Your task to perform on an android device: Open accessibility settings Image 0: 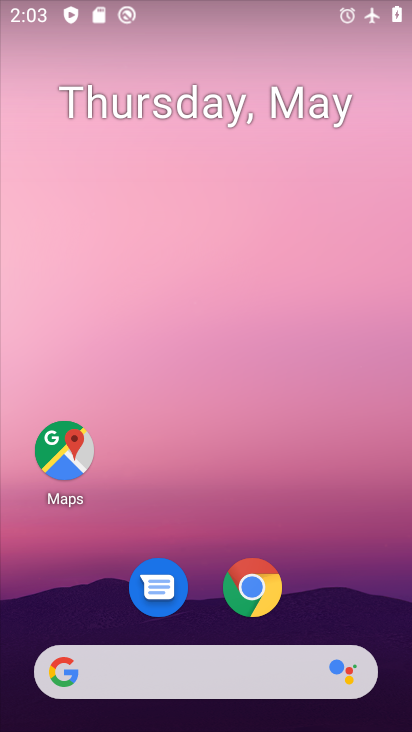
Step 0: drag from (325, 549) to (261, 67)
Your task to perform on an android device: Open accessibility settings Image 1: 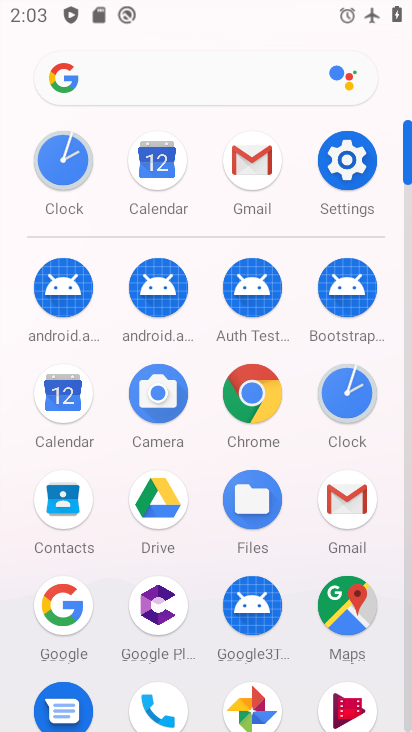
Step 1: click (342, 165)
Your task to perform on an android device: Open accessibility settings Image 2: 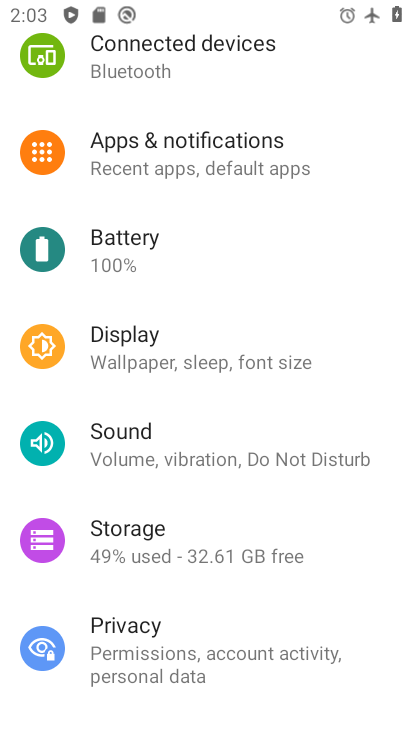
Step 2: drag from (133, 301) to (118, 237)
Your task to perform on an android device: Open accessibility settings Image 3: 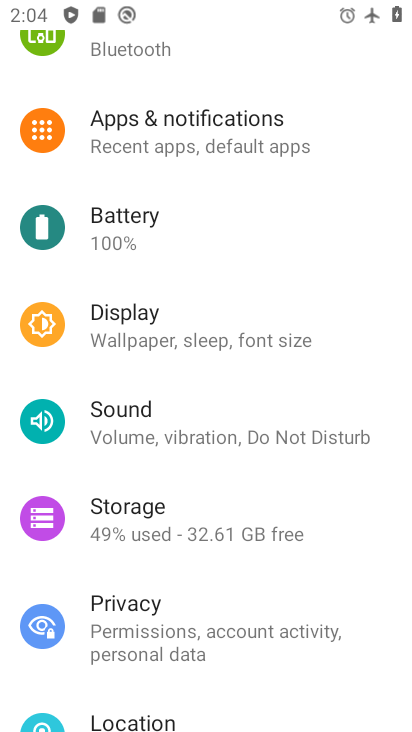
Step 3: drag from (176, 586) to (175, 308)
Your task to perform on an android device: Open accessibility settings Image 4: 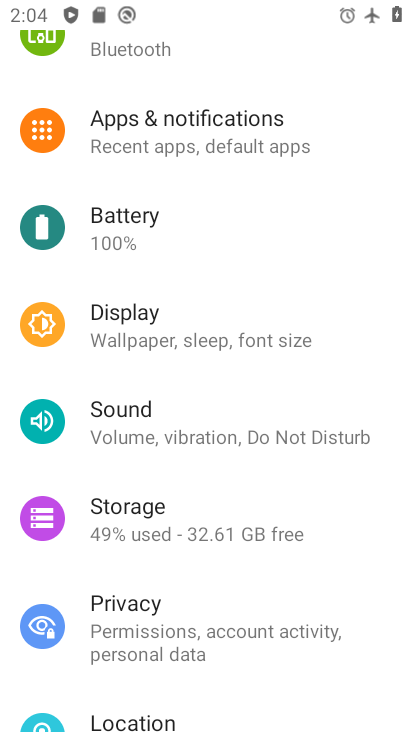
Step 4: drag from (177, 561) to (159, 184)
Your task to perform on an android device: Open accessibility settings Image 5: 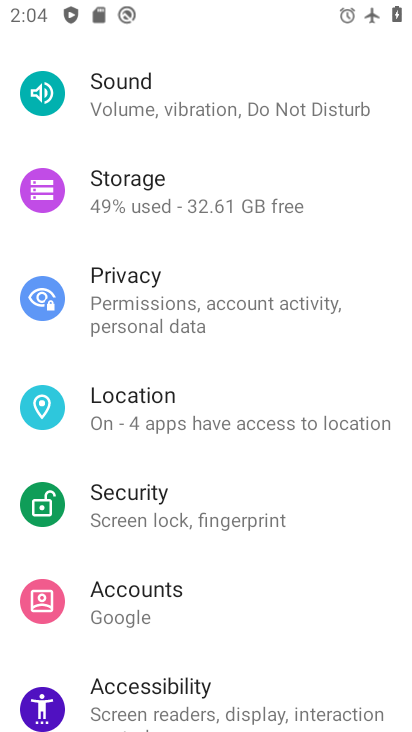
Step 5: click (155, 691)
Your task to perform on an android device: Open accessibility settings Image 6: 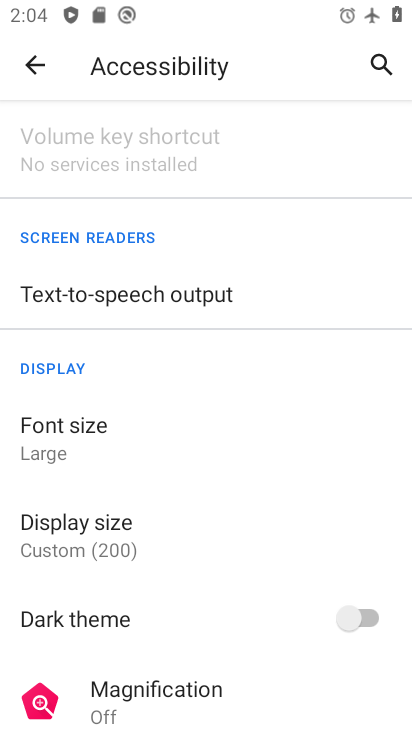
Step 6: task complete